Your task to perform on an android device: Open calendar and show me the first week of next month Image 0: 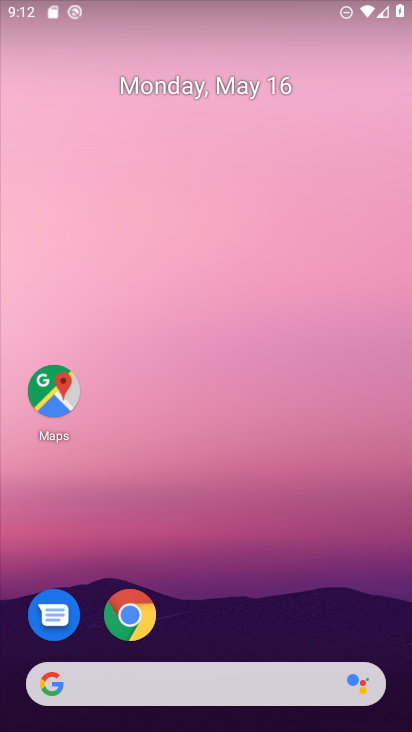
Step 0: drag from (51, 566) to (323, 139)
Your task to perform on an android device: Open calendar and show me the first week of next month Image 1: 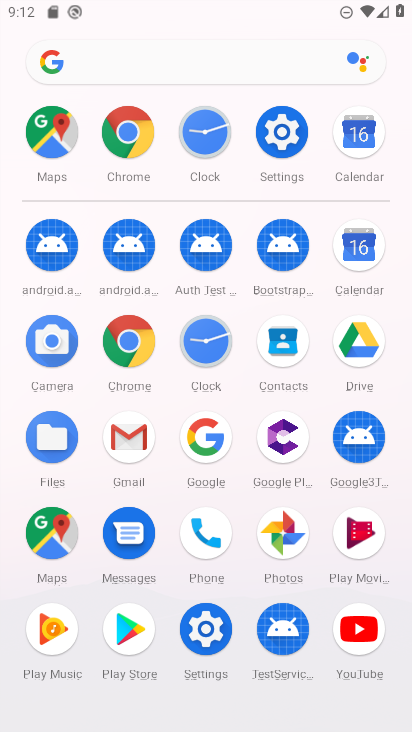
Step 1: click (361, 138)
Your task to perform on an android device: Open calendar and show me the first week of next month Image 2: 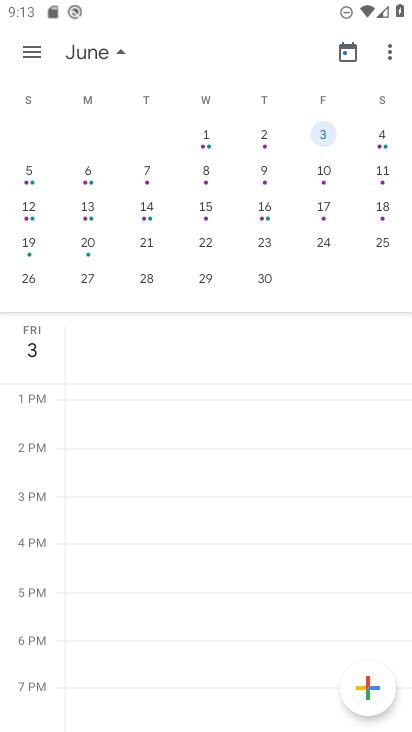
Step 2: click (270, 138)
Your task to perform on an android device: Open calendar and show me the first week of next month Image 3: 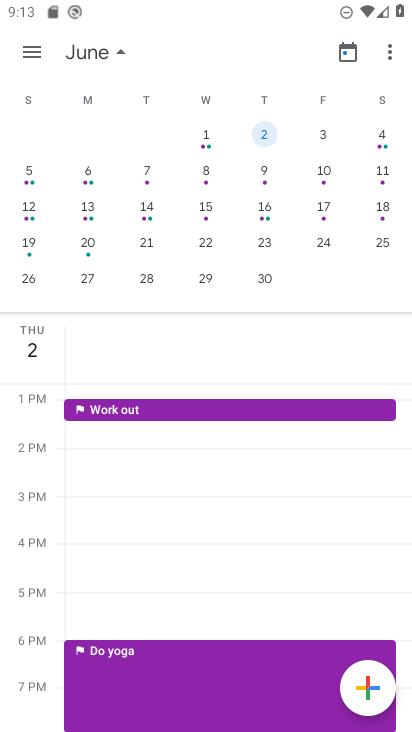
Step 3: click (325, 133)
Your task to perform on an android device: Open calendar and show me the first week of next month Image 4: 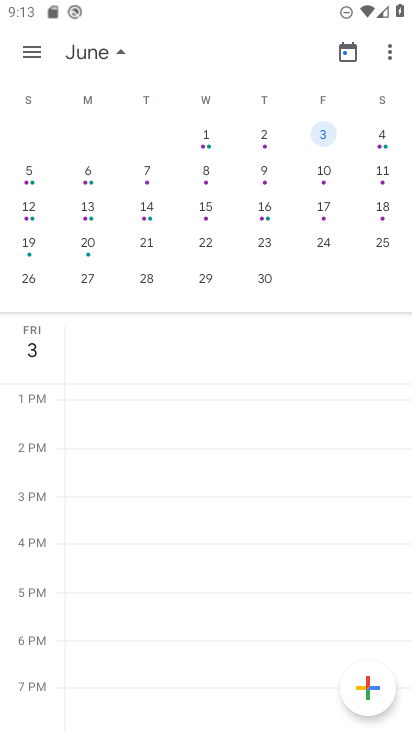
Step 4: task complete